Your task to perform on an android device: Go to CNN.com Image 0: 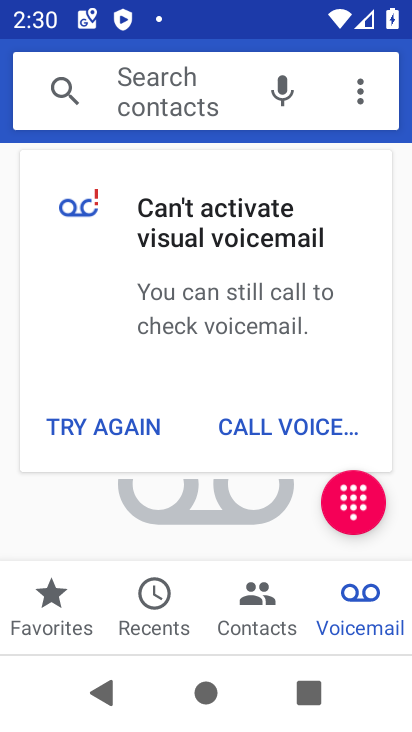
Step 0: drag from (285, 519) to (391, 249)
Your task to perform on an android device: Go to CNN.com Image 1: 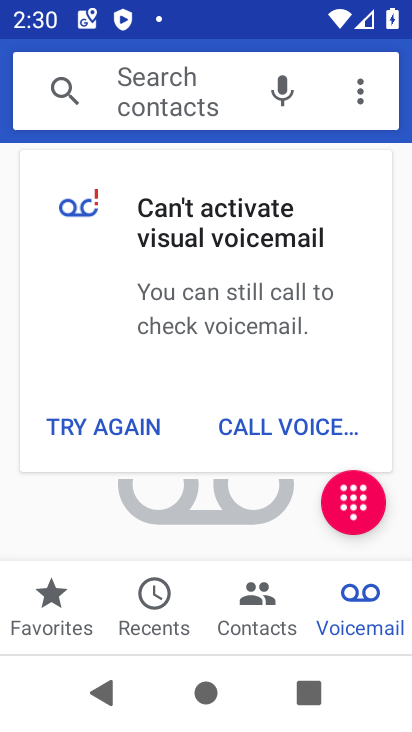
Step 1: press home button
Your task to perform on an android device: Go to CNN.com Image 2: 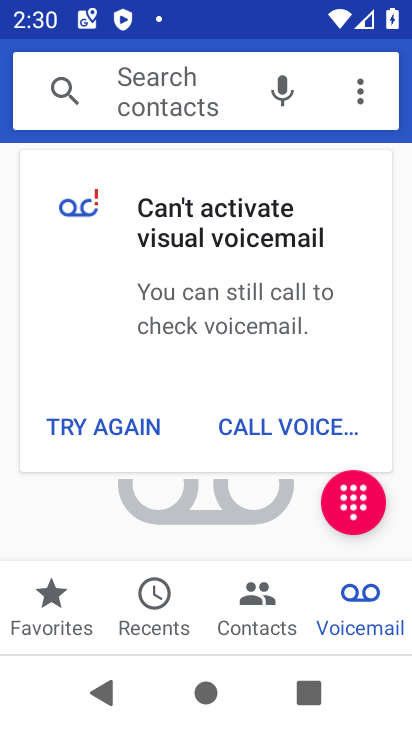
Step 2: drag from (391, 249) to (393, 419)
Your task to perform on an android device: Go to CNN.com Image 3: 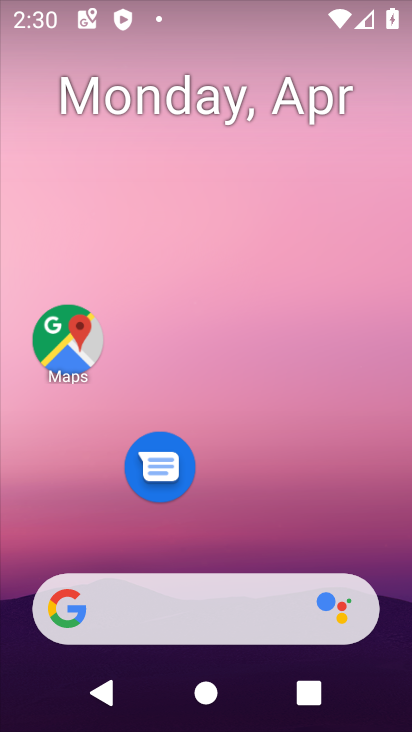
Step 3: drag from (213, 542) to (332, 86)
Your task to perform on an android device: Go to CNN.com Image 4: 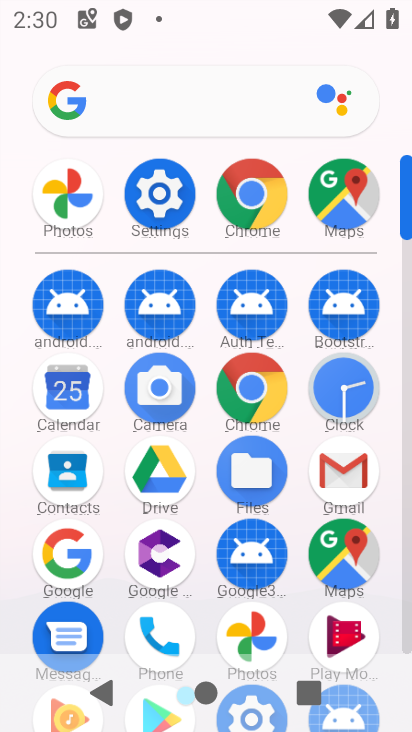
Step 4: click (256, 202)
Your task to perform on an android device: Go to CNN.com Image 5: 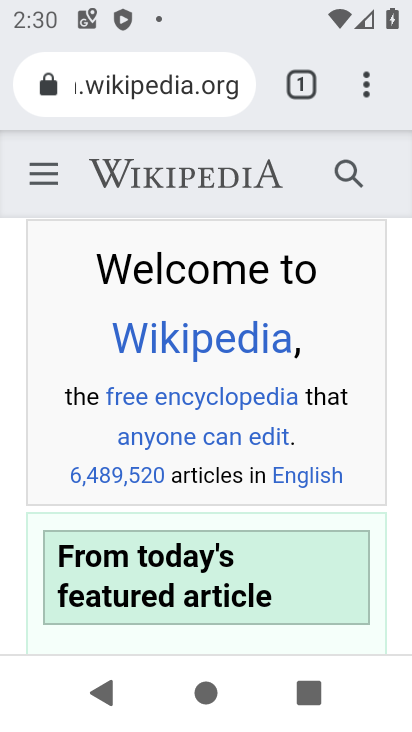
Step 5: click (159, 99)
Your task to perform on an android device: Go to CNN.com Image 6: 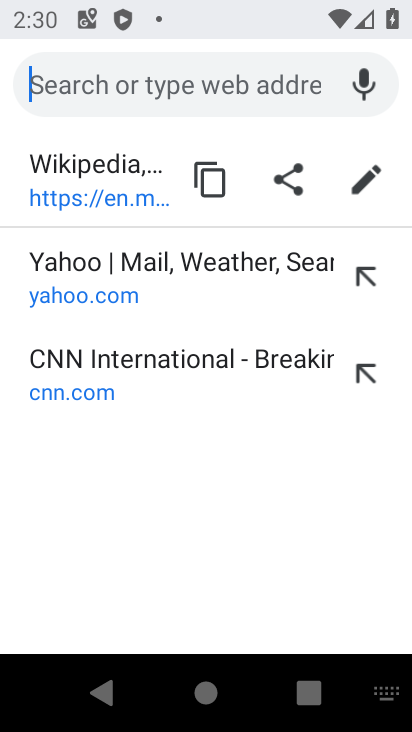
Step 6: type "CNN.com"
Your task to perform on an android device: Go to CNN.com Image 7: 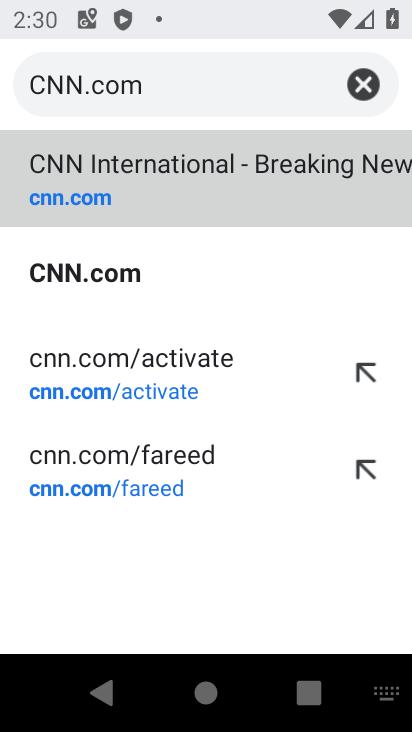
Step 7: click (90, 192)
Your task to perform on an android device: Go to CNN.com Image 8: 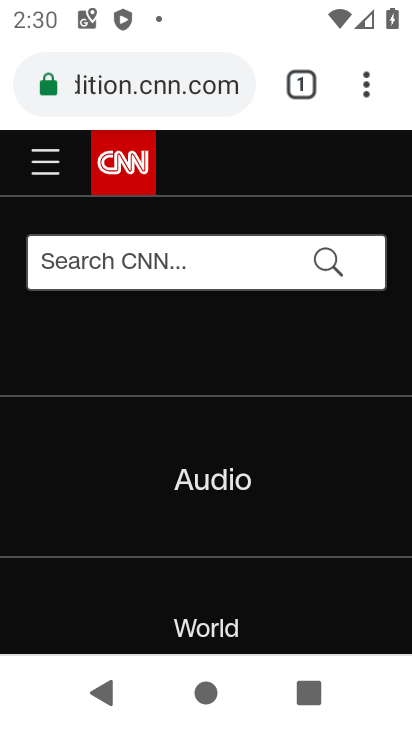
Step 8: task complete